Your task to perform on an android device: Open Google Maps and go to "Timeline" Image 0: 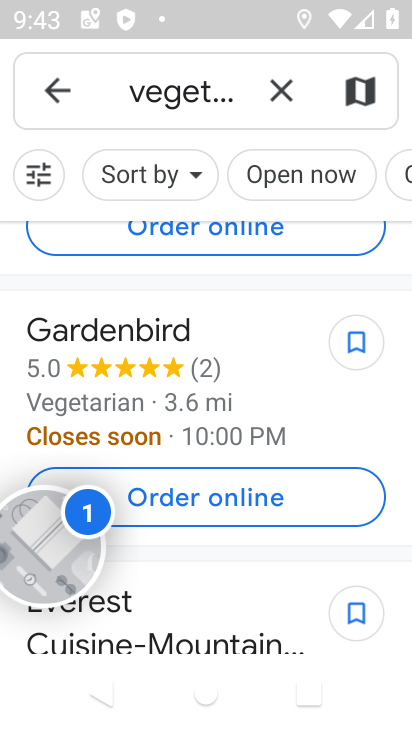
Step 0: press home button
Your task to perform on an android device: Open Google Maps and go to "Timeline" Image 1: 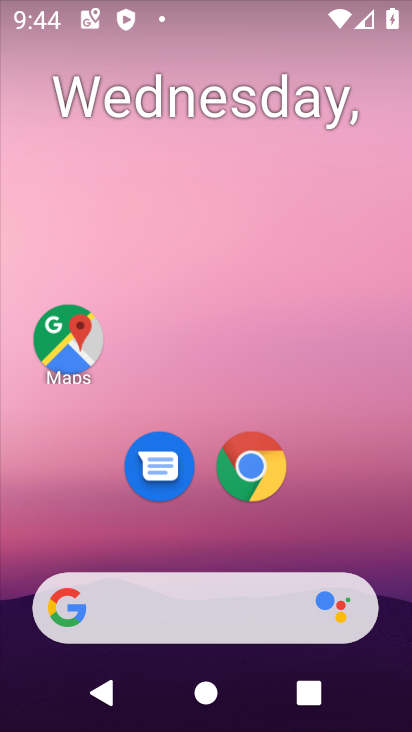
Step 1: click (72, 330)
Your task to perform on an android device: Open Google Maps and go to "Timeline" Image 2: 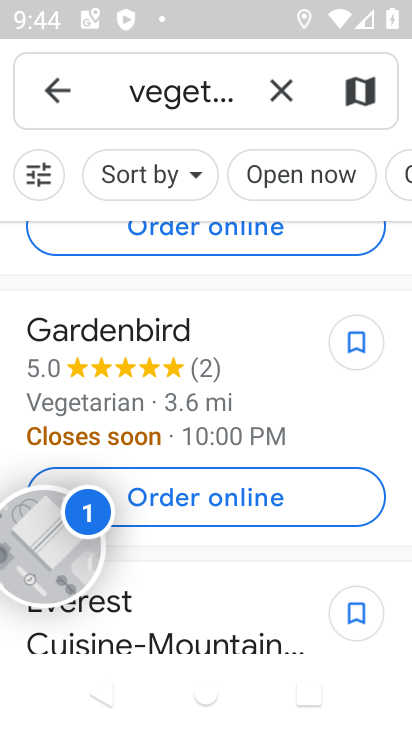
Step 2: click (49, 91)
Your task to perform on an android device: Open Google Maps and go to "Timeline" Image 3: 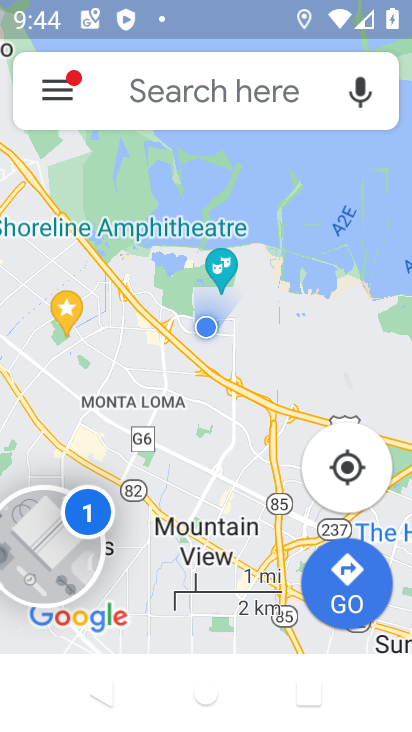
Step 3: click (49, 91)
Your task to perform on an android device: Open Google Maps and go to "Timeline" Image 4: 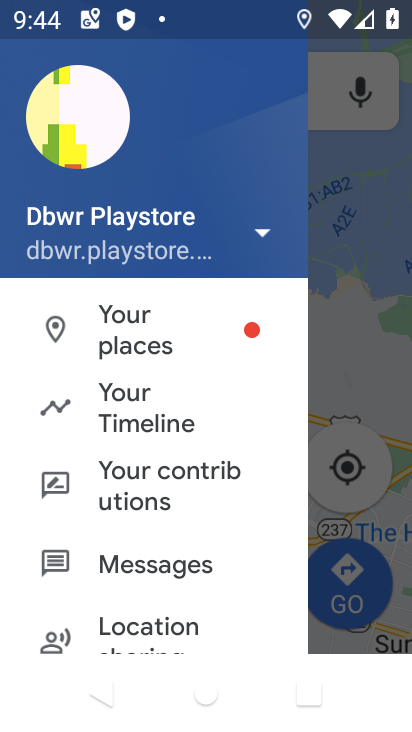
Step 4: click (125, 404)
Your task to perform on an android device: Open Google Maps and go to "Timeline" Image 5: 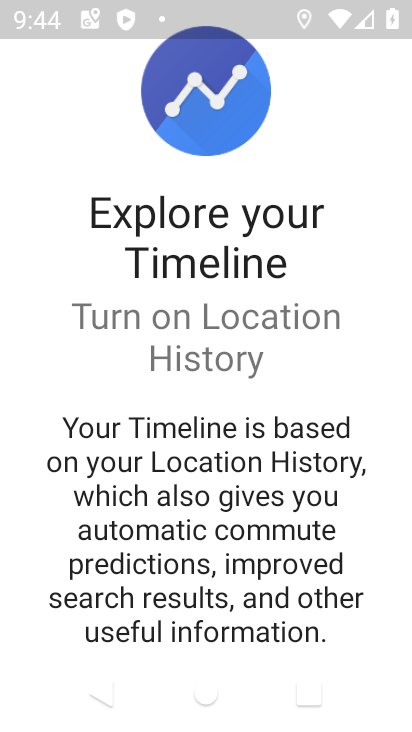
Step 5: task complete